Your task to perform on an android device: Open location settings Image 0: 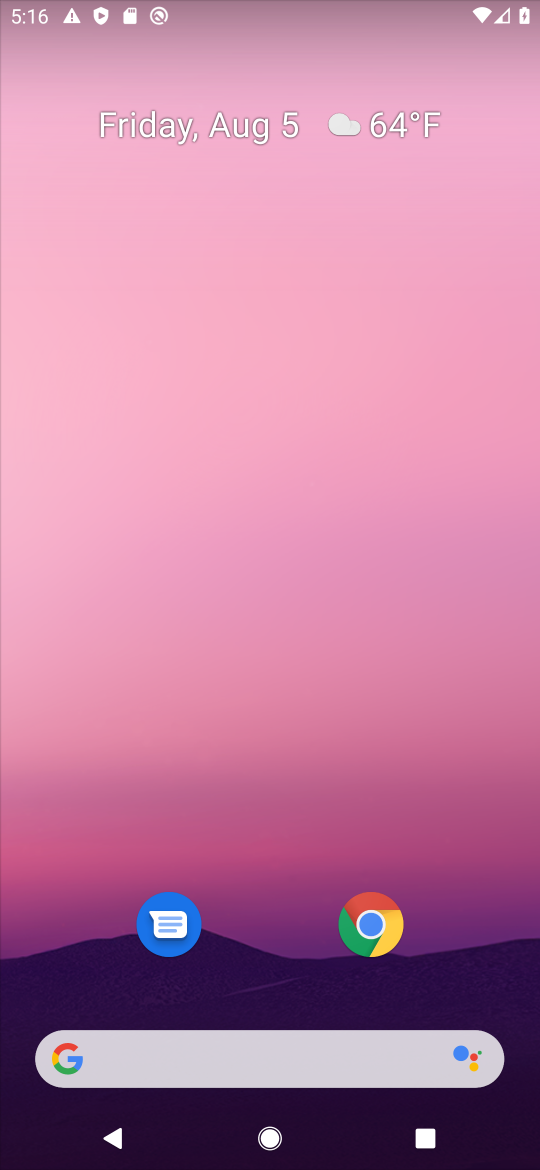
Step 0: drag from (341, 1123) to (498, 132)
Your task to perform on an android device: Open location settings Image 1: 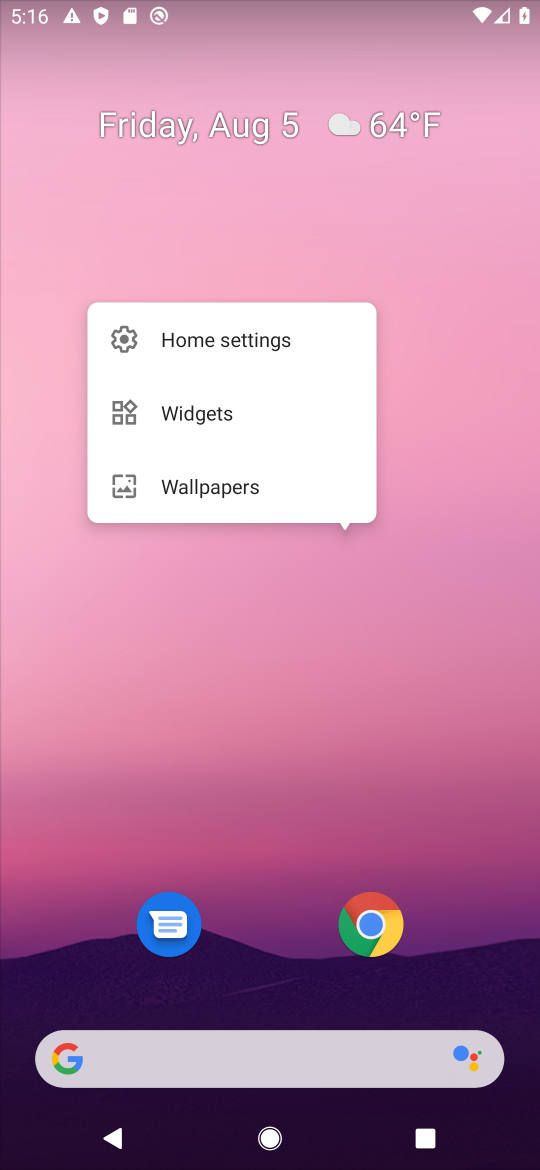
Step 1: drag from (370, 993) to (537, 550)
Your task to perform on an android device: Open location settings Image 2: 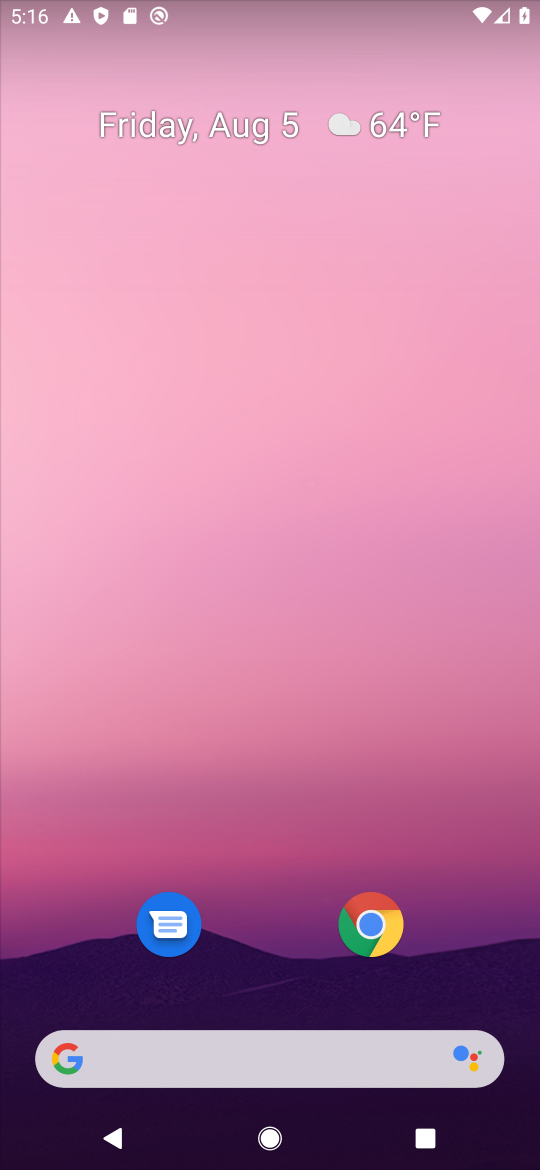
Step 2: drag from (342, 1147) to (382, 151)
Your task to perform on an android device: Open location settings Image 3: 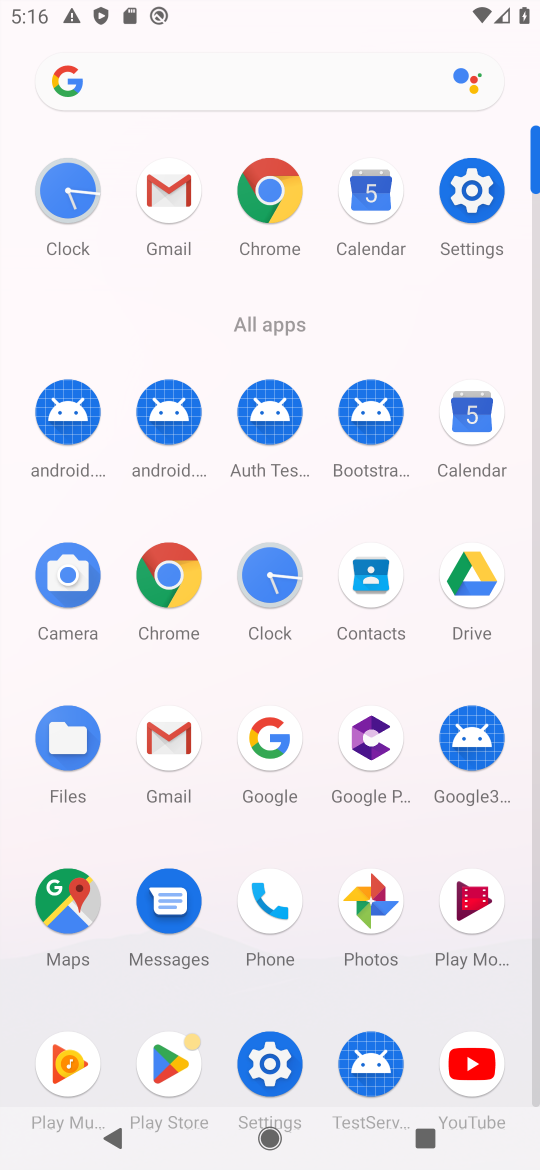
Step 3: click (489, 190)
Your task to perform on an android device: Open location settings Image 4: 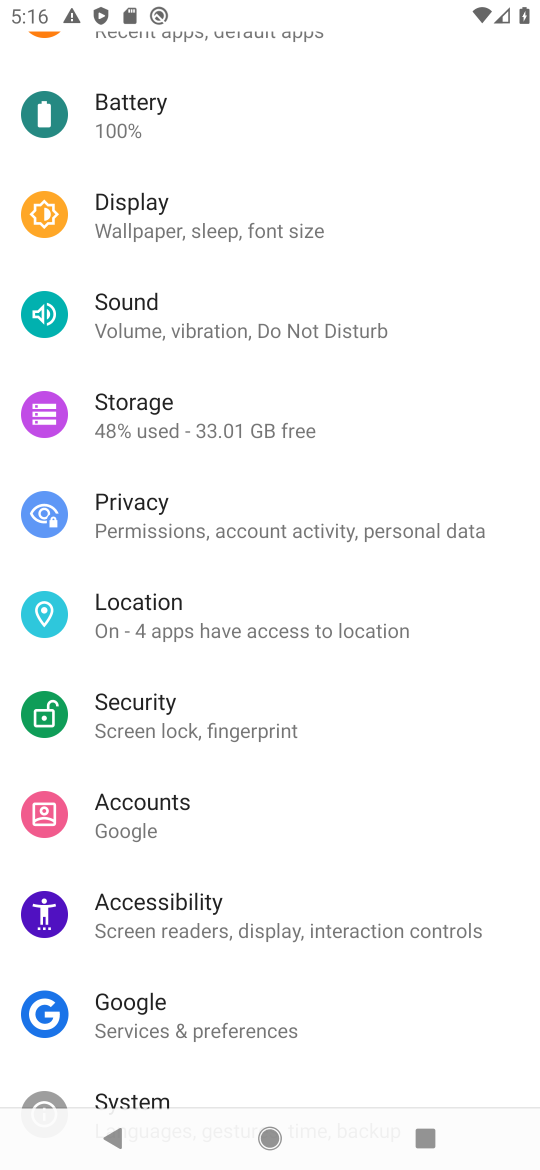
Step 4: click (234, 637)
Your task to perform on an android device: Open location settings Image 5: 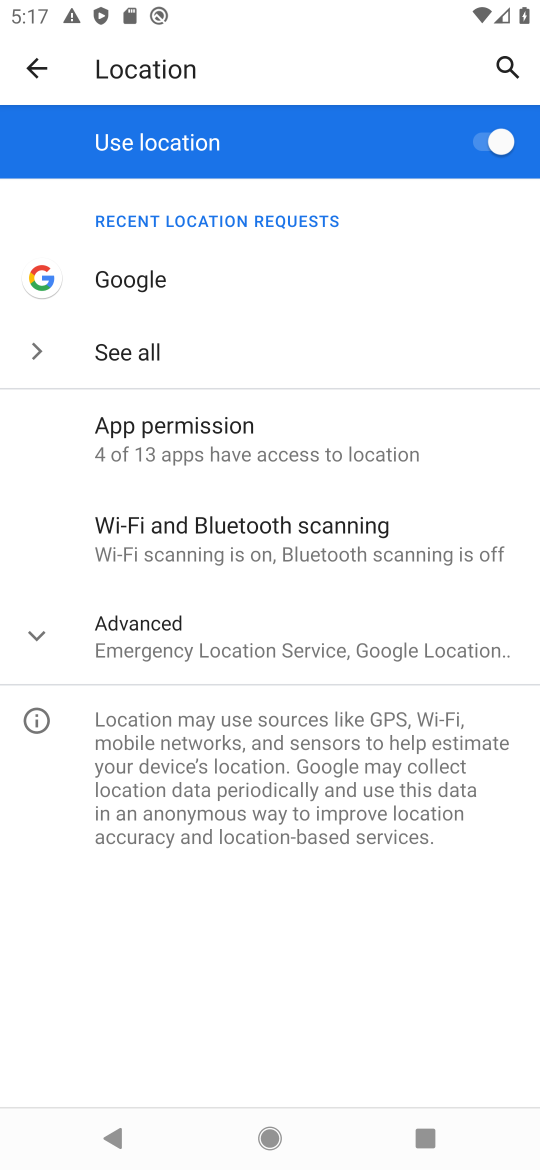
Step 5: task complete